Your task to perform on an android device: Open internet settings Image 0: 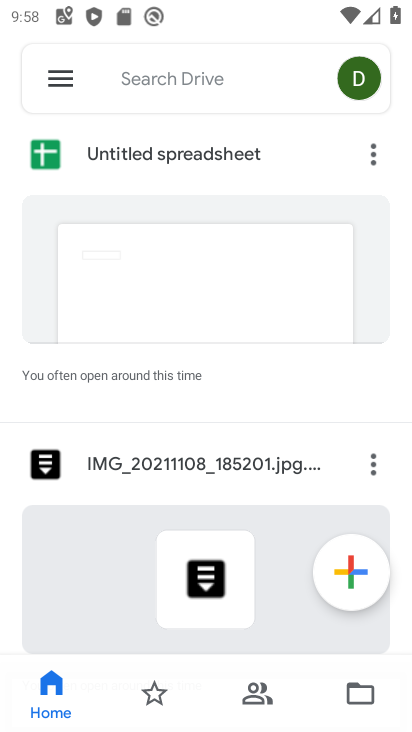
Step 0: press home button
Your task to perform on an android device: Open internet settings Image 1: 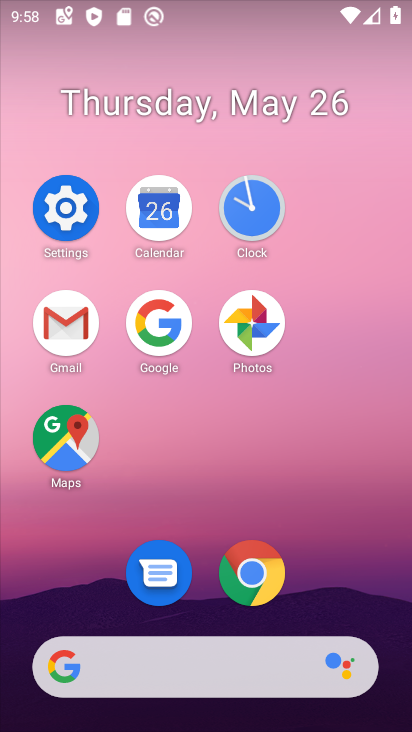
Step 1: click (55, 215)
Your task to perform on an android device: Open internet settings Image 2: 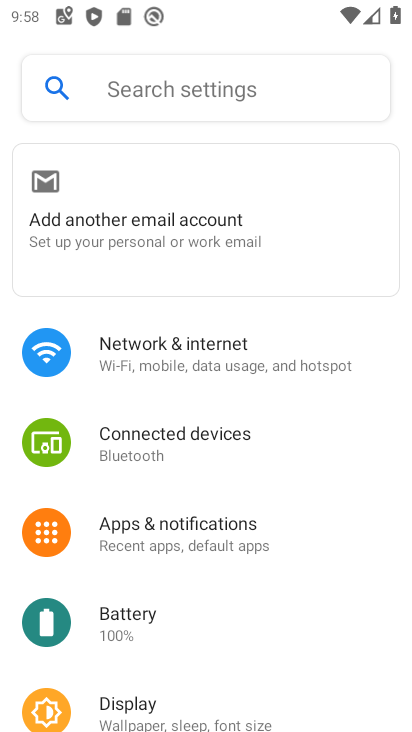
Step 2: click (181, 344)
Your task to perform on an android device: Open internet settings Image 3: 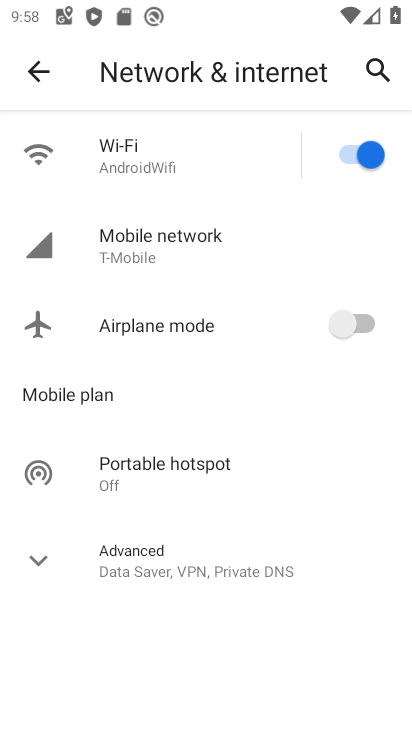
Step 3: task complete